Your task to perform on an android device: turn on translation in the chrome app Image 0: 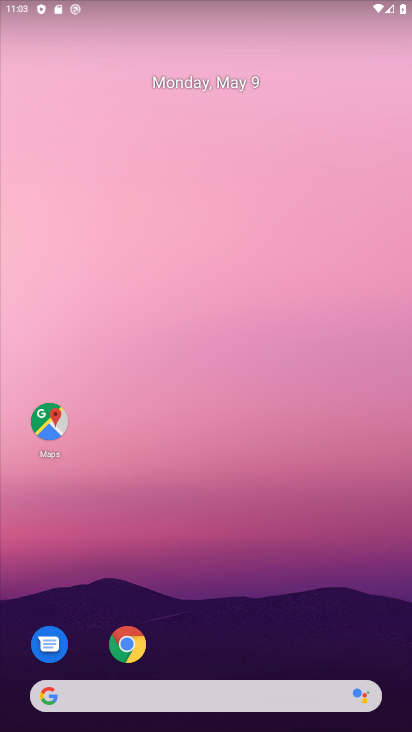
Step 0: click (143, 644)
Your task to perform on an android device: turn on translation in the chrome app Image 1: 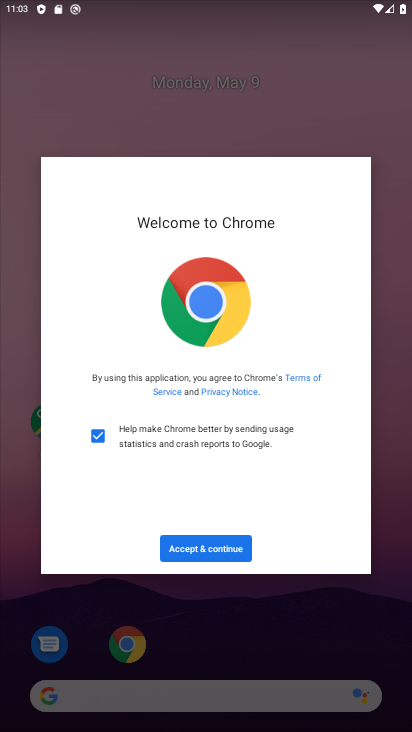
Step 1: click (212, 564)
Your task to perform on an android device: turn on translation in the chrome app Image 2: 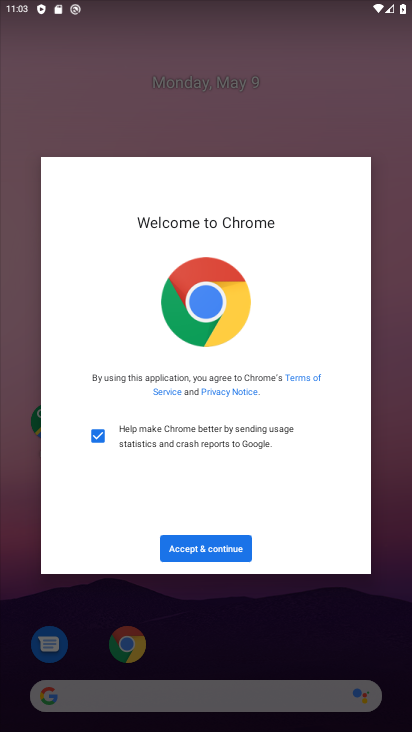
Step 2: click (205, 548)
Your task to perform on an android device: turn on translation in the chrome app Image 3: 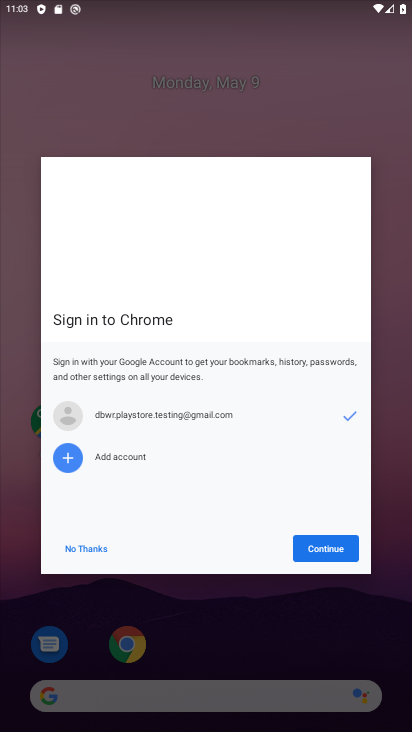
Step 3: click (319, 544)
Your task to perform on an android device: turn on translation in the chrome app Image 4: 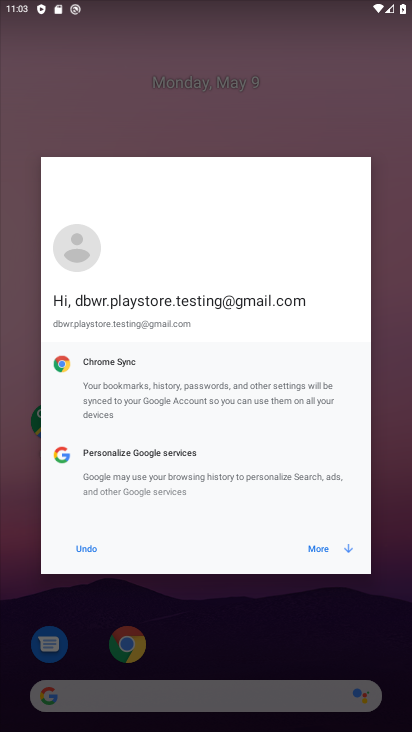
Step 4: click (322, 544)
Your task to perform on an android device: turn on translation in the chrome app Image 5: 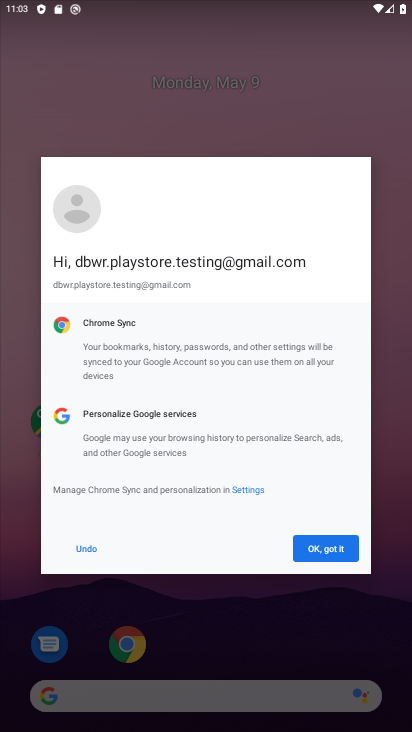
Step 5: click (323, 544)
Your task to perform on an android device: turn on translation in the chrome app Image 6: 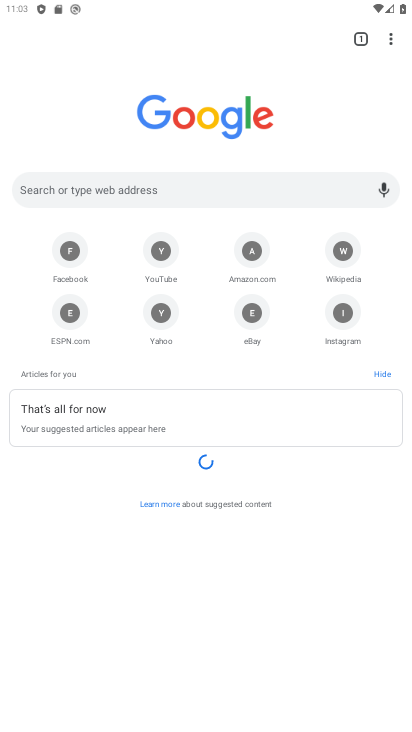
Step 6: drag from (389, 44) to (254, 314)
Your task to perform on an android device: turn on translation in the chrome app Image 7: 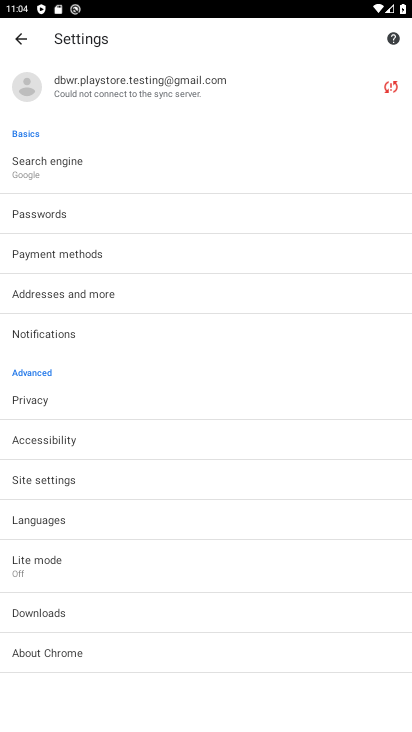
Step 7: click (65, 522)
Your task to perform on an android device: turn on translation in the chrome app Image 8: 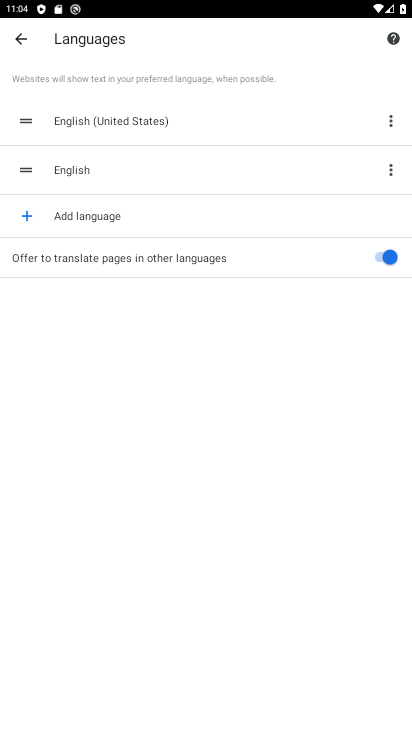
Step 8: task complete